Your task to perform on an android device: Open internet settings Image 0: 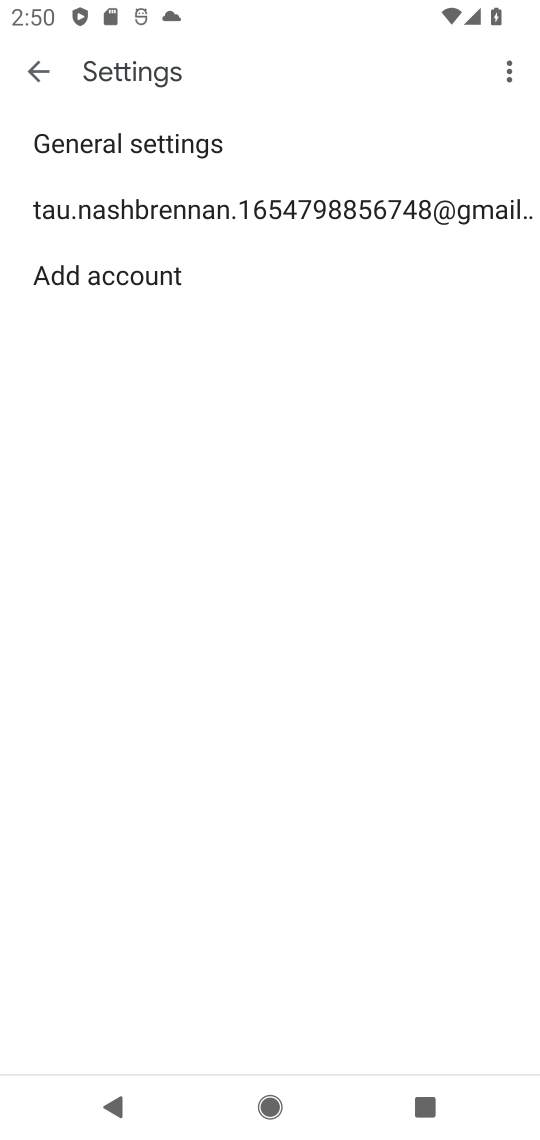
Step 0: press home button
Your task to perform on an android device: Open internet settings Image 1: 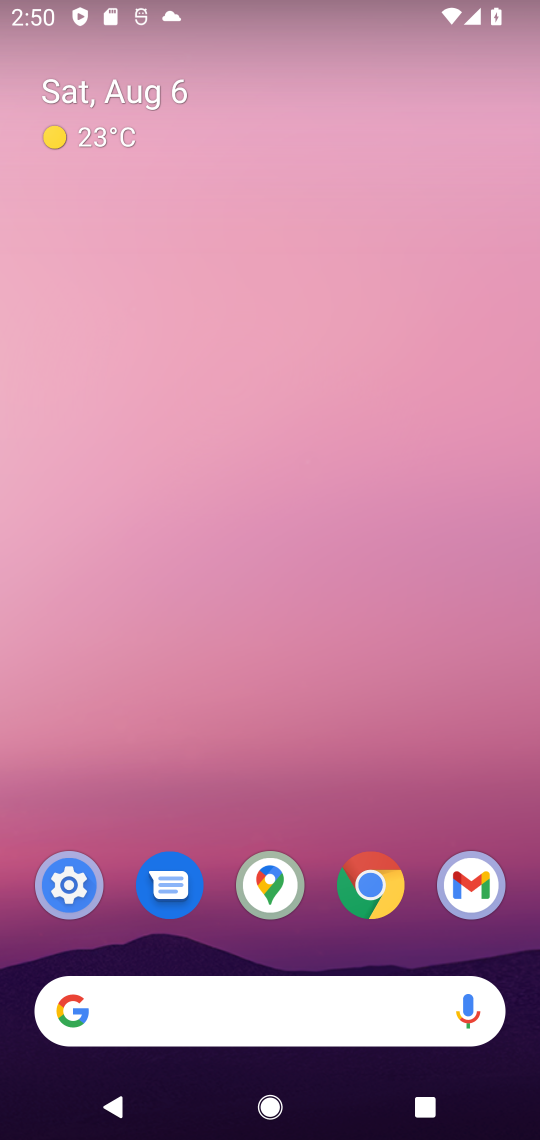
Step 1: drag from (532, 981) to (269, 160)
Your task to perform on an android device: Open internet settings Image 2: 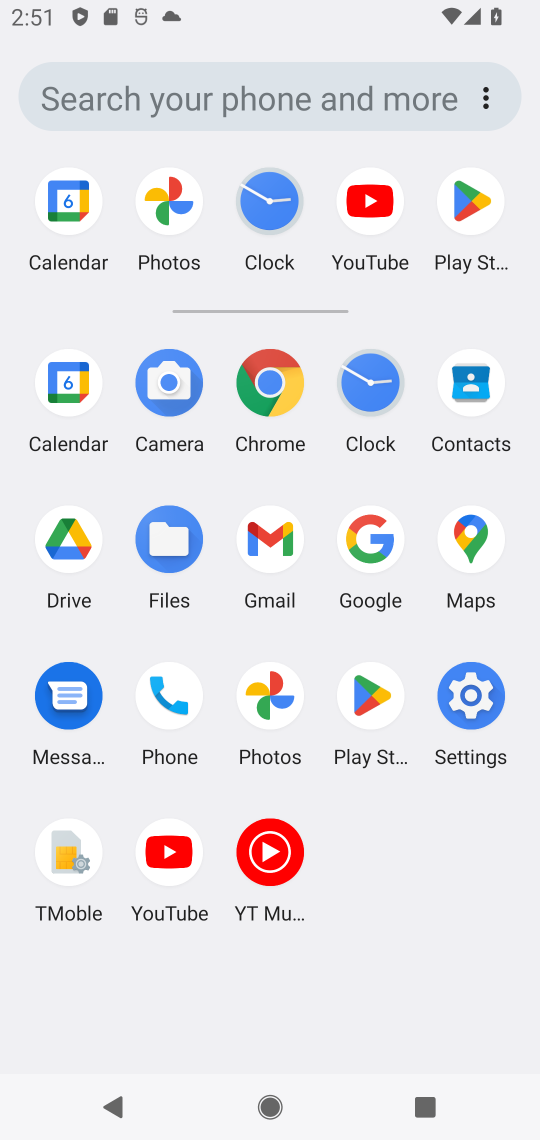
Step 2: click (452, 699)
Your task to perform on an android device: Open internet settings Image 3: 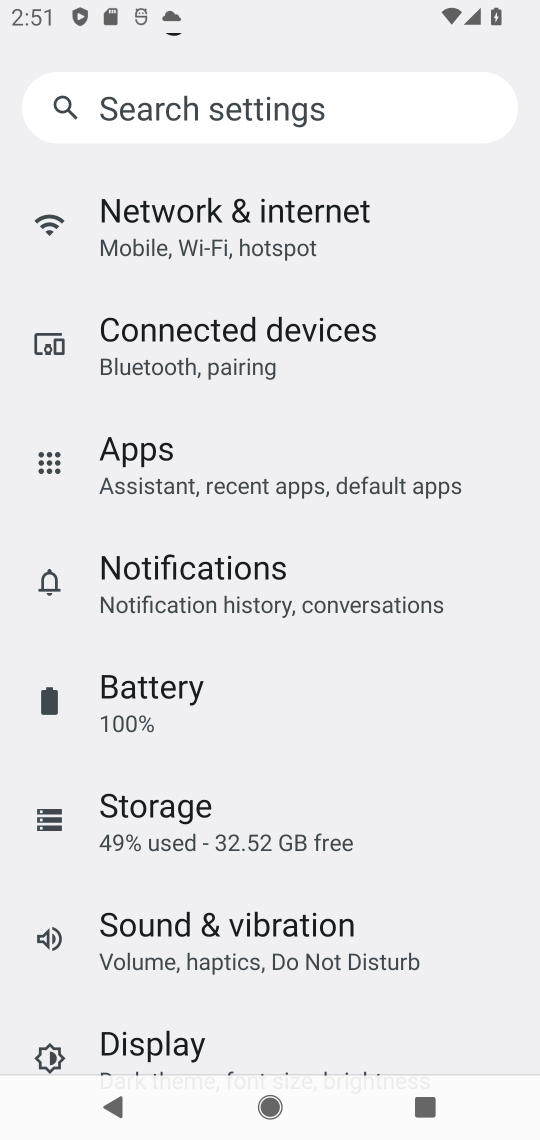
Step 3: click (239, 254)
Your task to perform on an android device: Open internet settings Image 4: 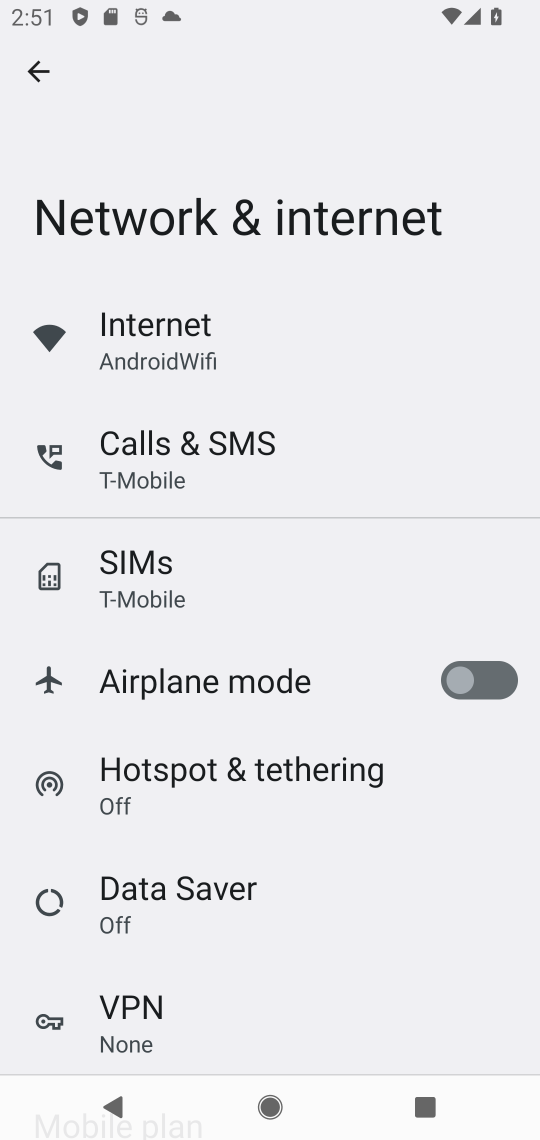
Step 4: task complete